Your task to perform on an android device: Show me productivity apps on the Play Store Image 0: 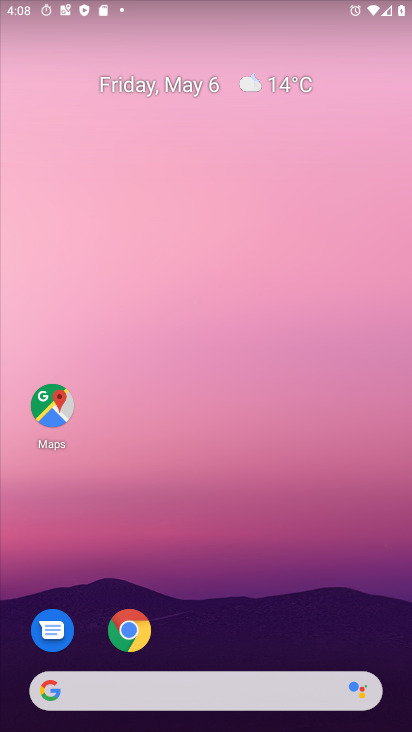
Step 0: drag from (234, 644) to (247, 127)
Your task to perform on an android device: Show me productivity apps on the Play Store Image 1: 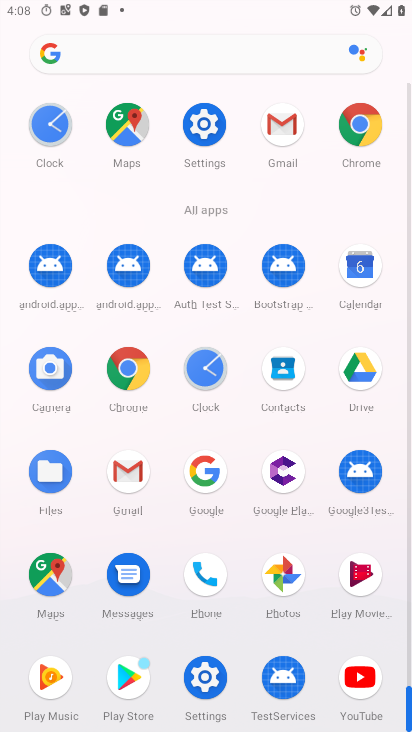
Step 1: click (129, 671)
Your task to perform on an android device: Show me productivity apps on the Play Store Image 2: 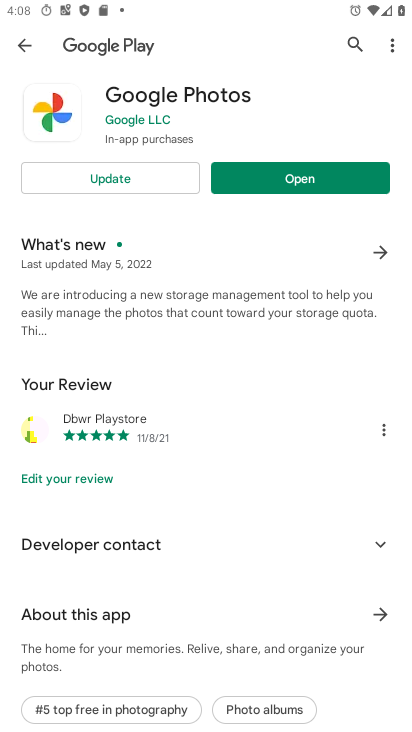
Step 2: click (24, 32)
Your task to perform on an android device: Show me productivity apps on the Play Store Image 3: 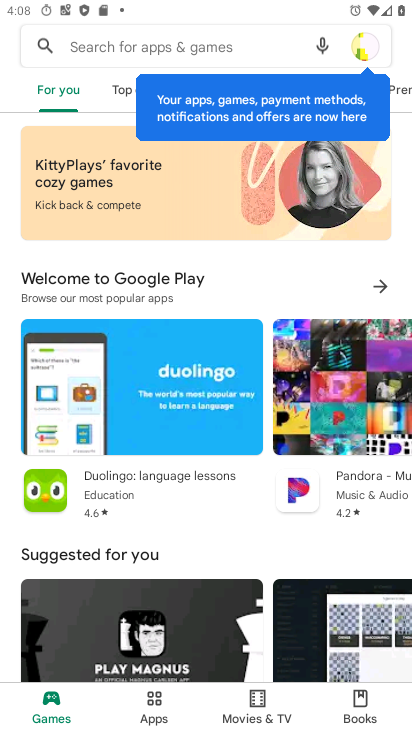
Step 3: click (150, 711)
Your task to perform on an android device: Show me productivity apps on the Play Store Image 4: 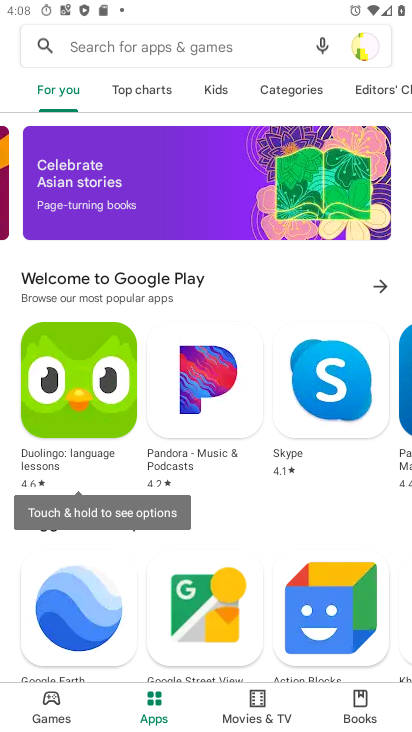
Step 4: click (282, 105)
Your task to perform on an android device: Show me productivity apps on the Play Store Image 5: 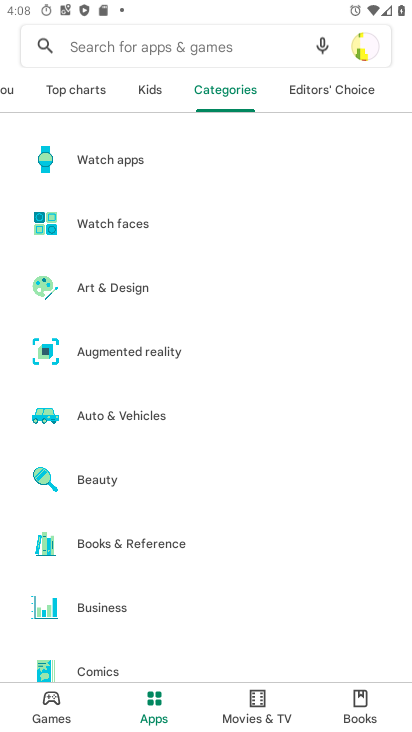
Step 5: drag from (120, 671) to (329, 50)
Your task to perform on an android device: Show me productivity apps on the Play Store Image 6: 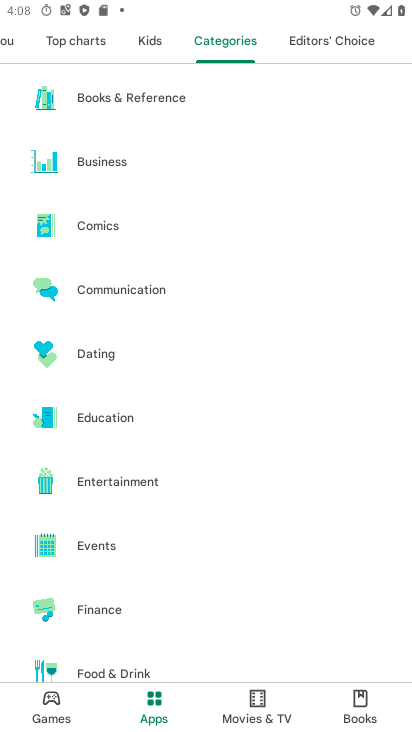
Step 6: drag from (122, 568) to (183, 12)
Your task to perform on an android device: Show me productivity apps on the Play Store Image 7: 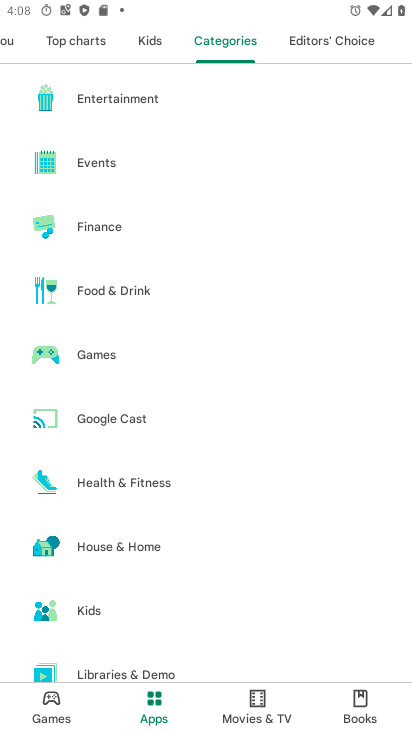
Step 7: drag from (137, 596) to (209, 155)
Your task to perform on an android device: Show me productivity apps on the Play Store Image 8: 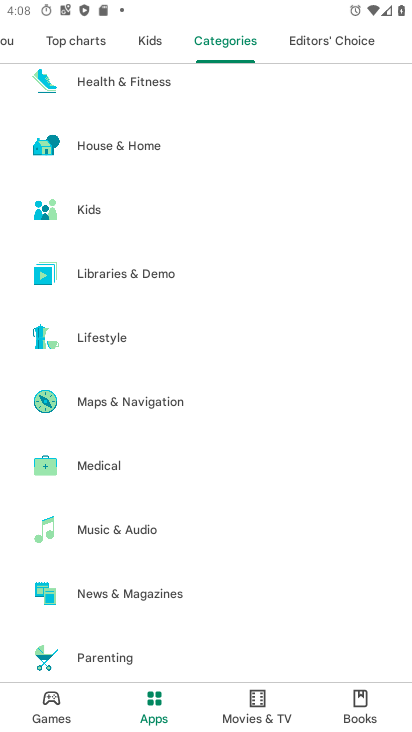
Step 8: drag from (83, 652) to (226, 128)
Your task to perform on an android device: Show me productivity apps on the Play Store Image 9: 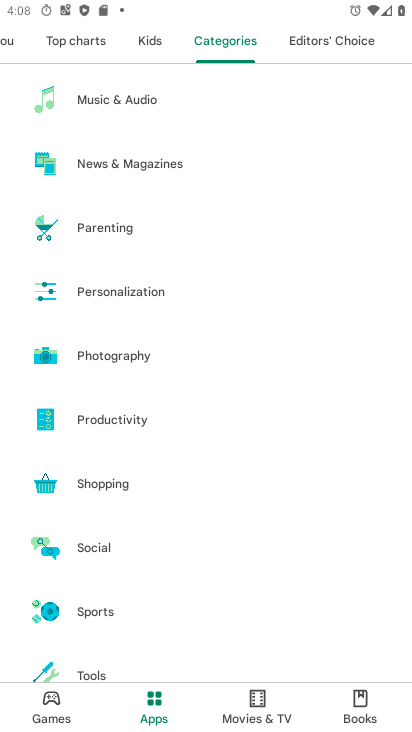
Step 9: click (117, 443)
Your task to perform on an android device: Show me productivity apps on the Play Store Image 10: 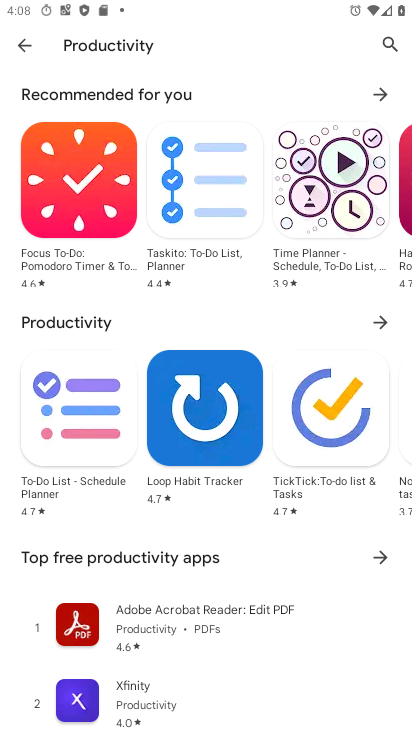
Step 10: task complete